Your task to perform on an android device: Open Reddit.com Image 0: 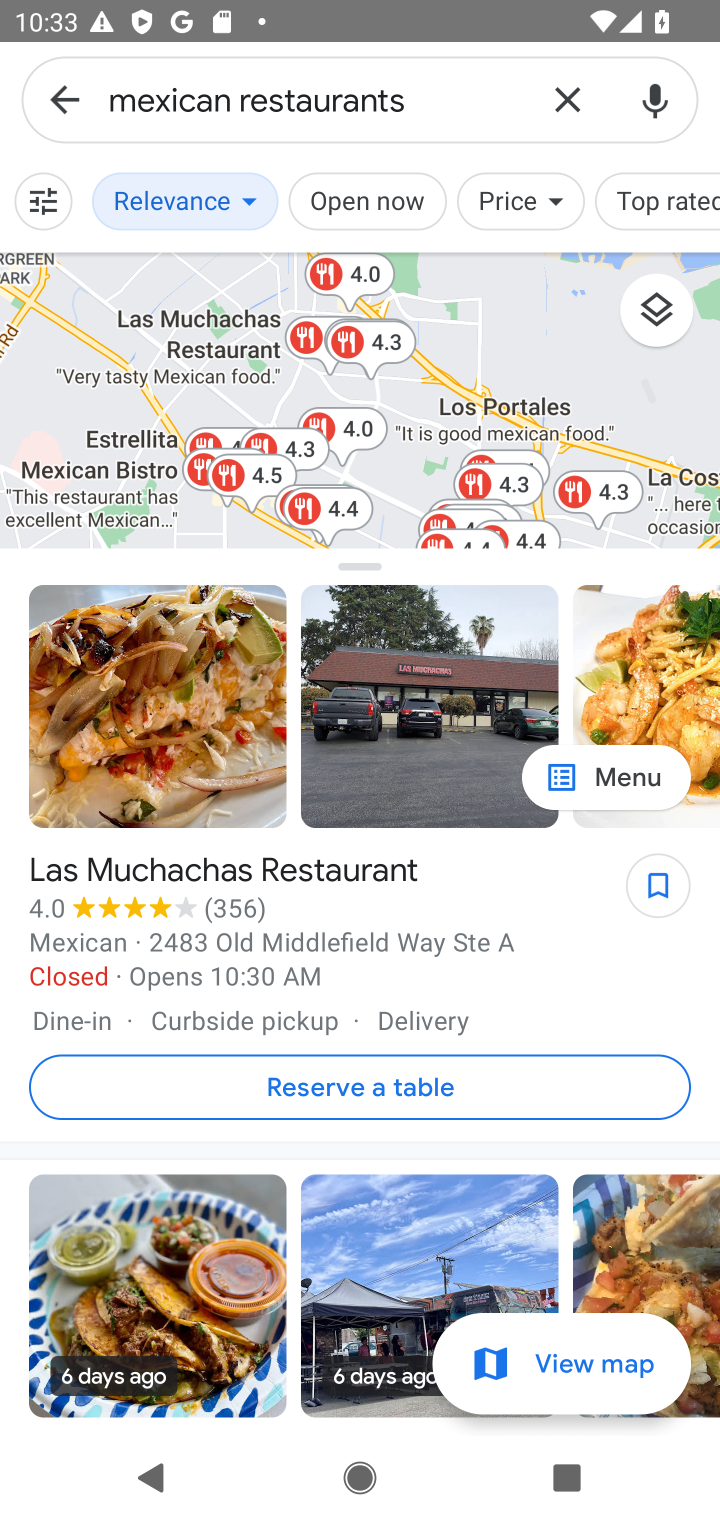
Step 0: press home button
Your task to perform on an android device: Open Reddit.com Image 1: 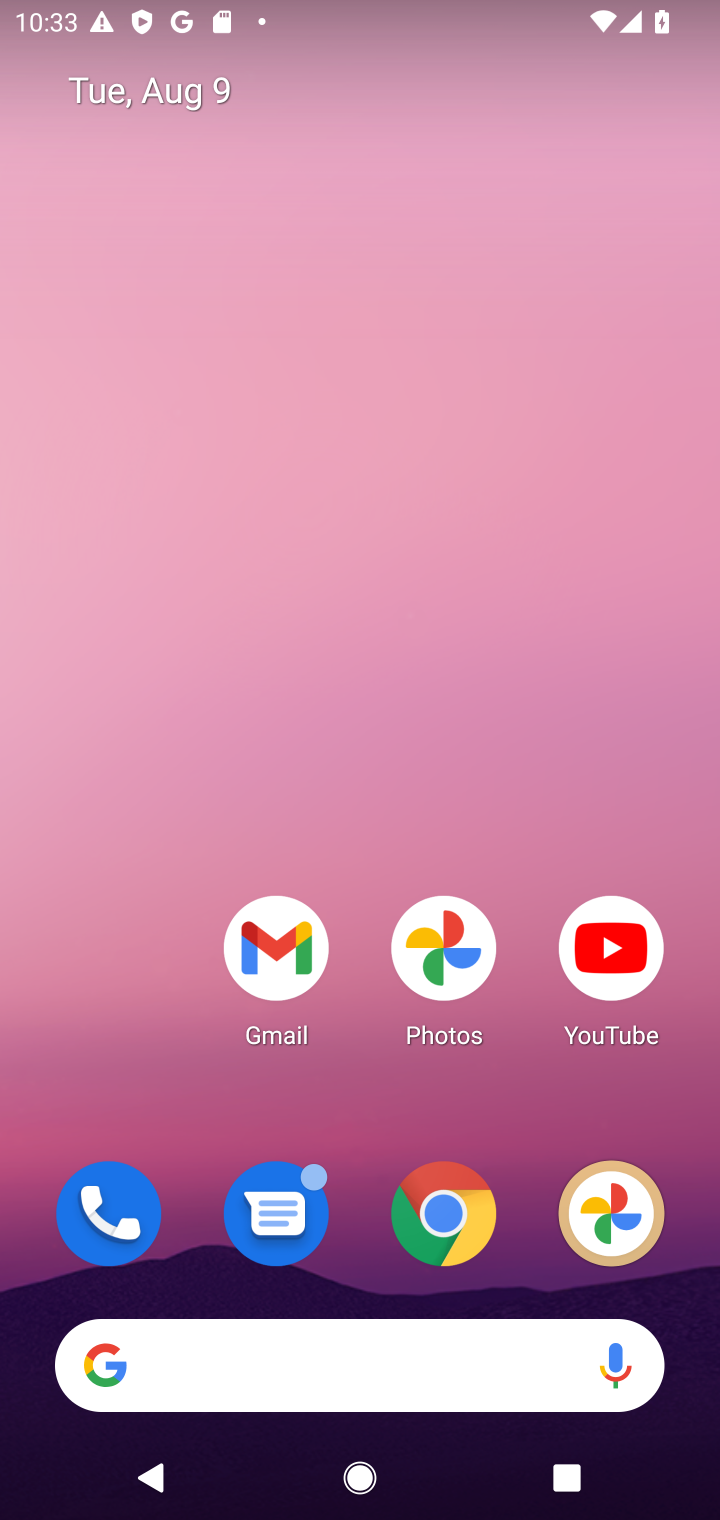
Step 1: click (477, 1220)
Your task to perform on an android device: Open Reddit.com Image 2: 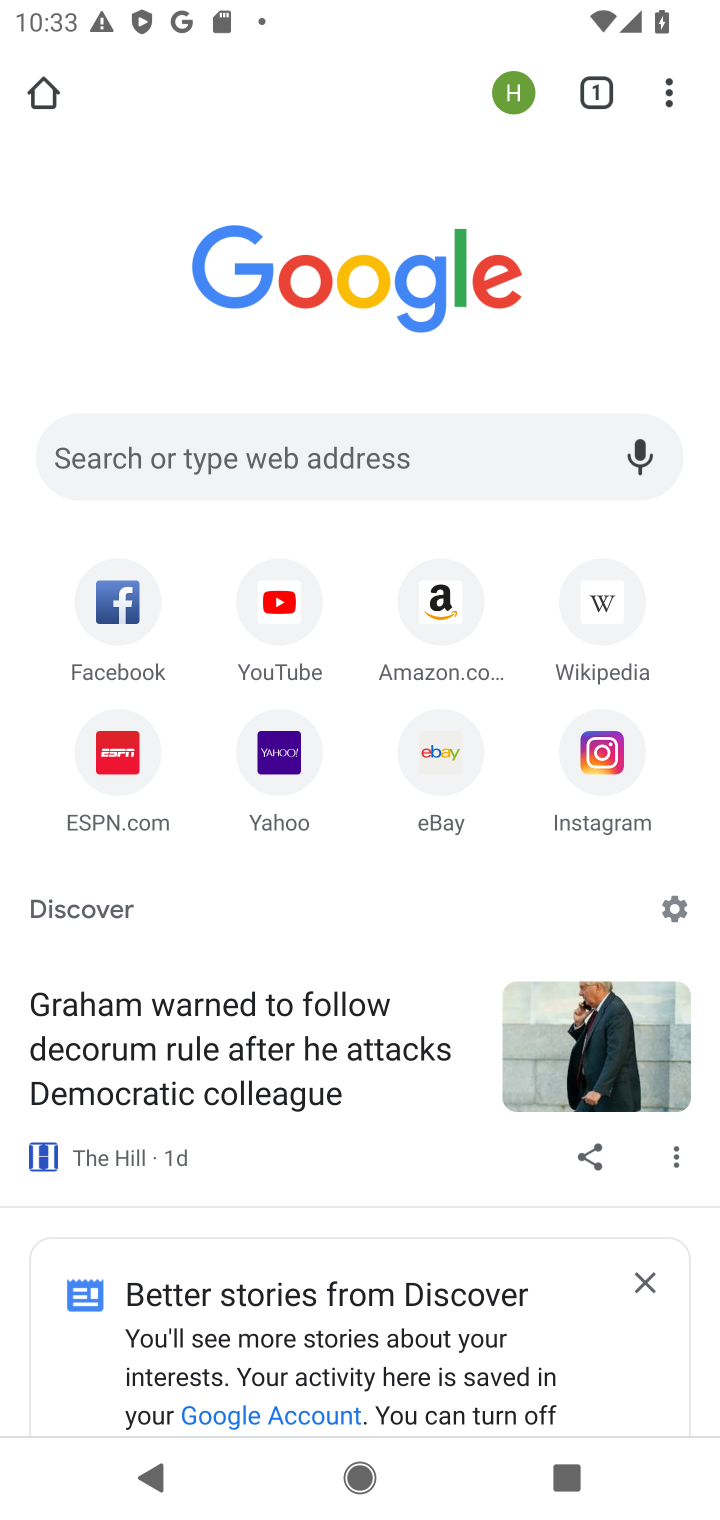
Step 2: click (417, 444)
Your task to perform on an android device: Open Reddit.com Image 3: 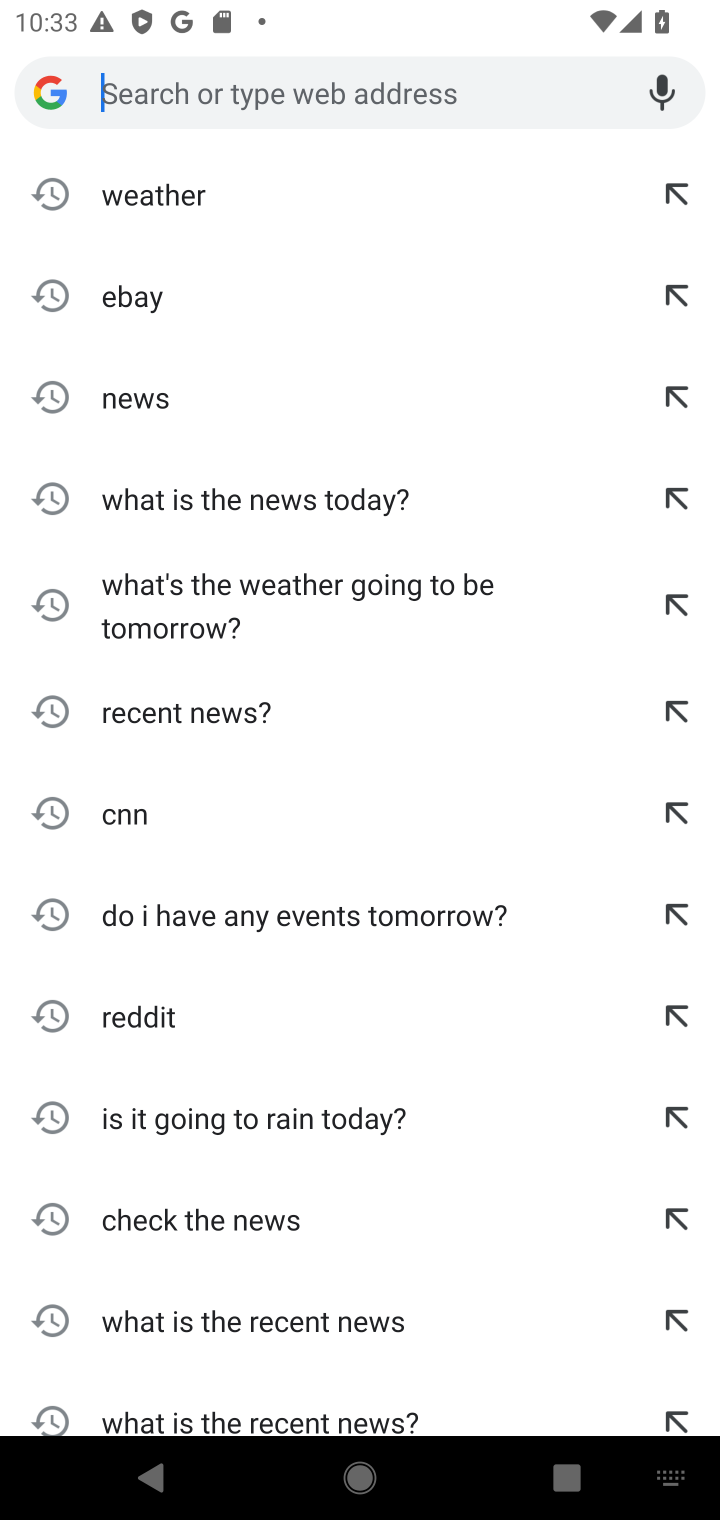
Step 3: type "eddit.com"
Your task to perform on an android device: Open Reddit.com Image 4: 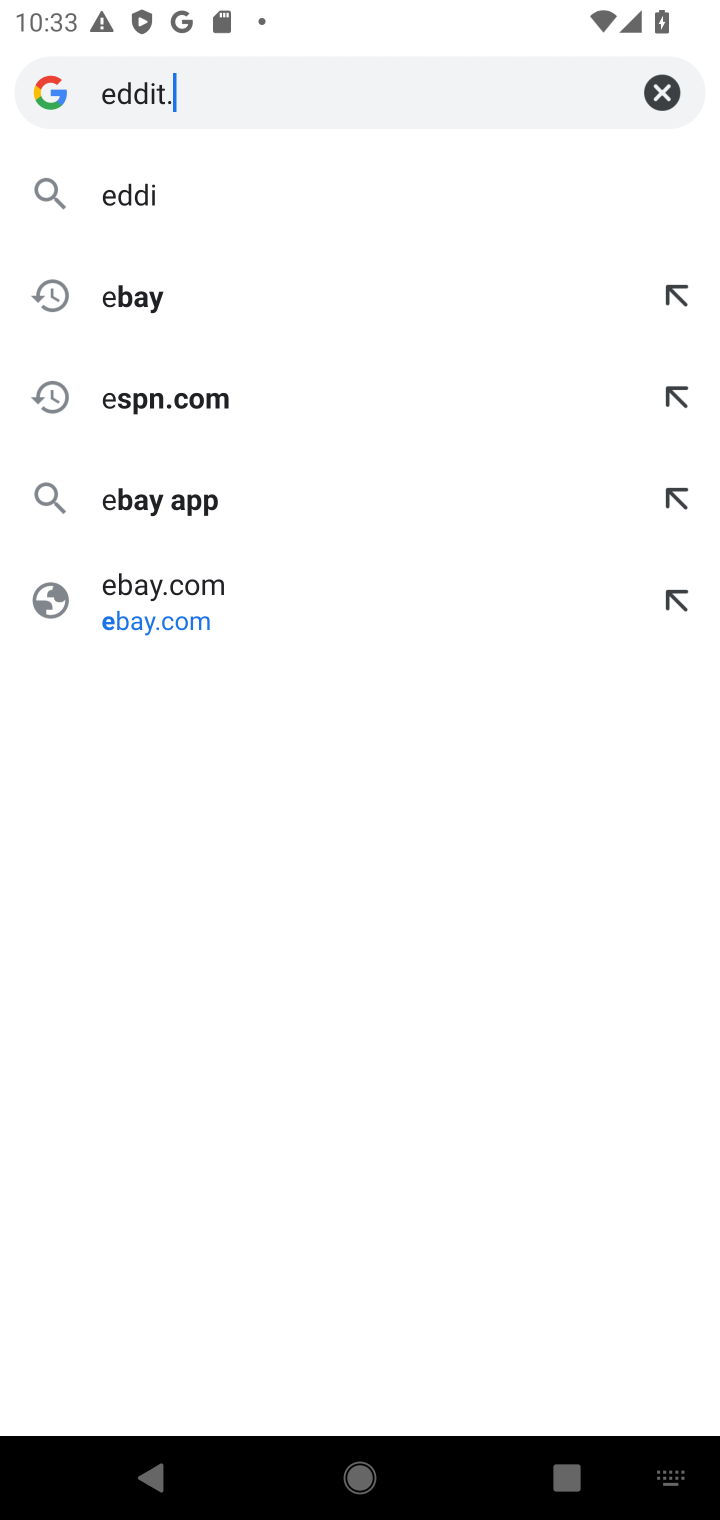
Step 4: type ""
Your task to perform on an android device: Open Reddit.com Image 5: 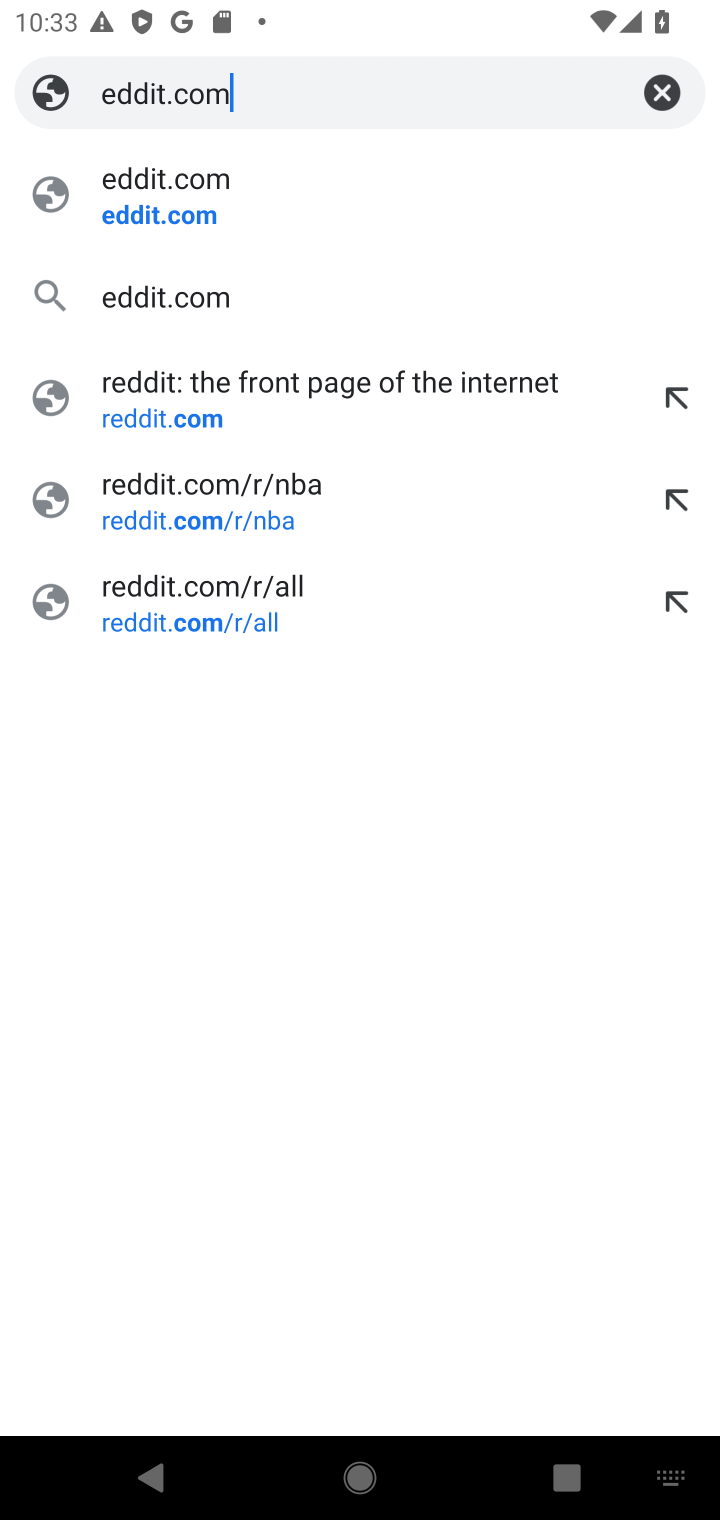
Step 5: click (137, 475)
Your task to perform on an android device: Open Reddit.com Image 6: 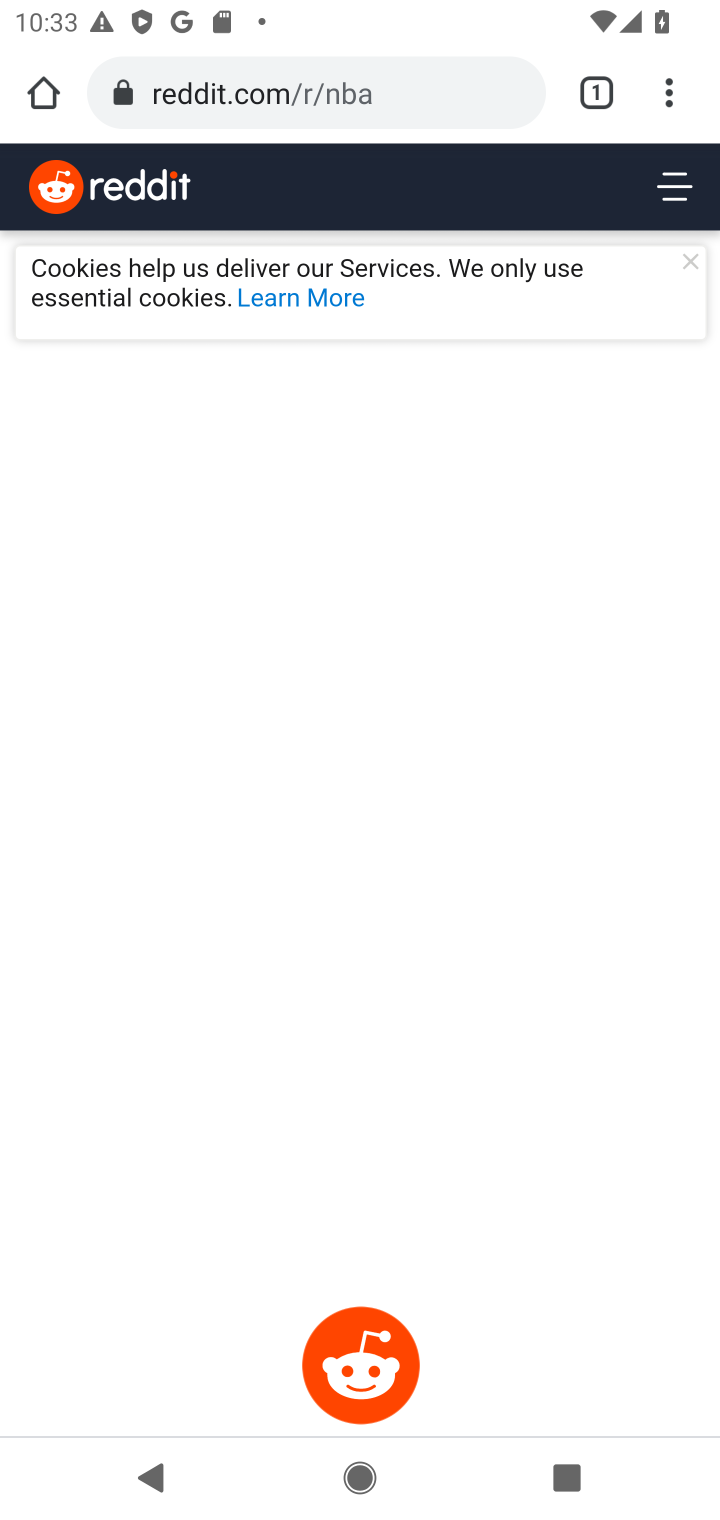
Step 6: task complete